Your task to perform on an android device: make emails show in primary in the gmail app Image 0: 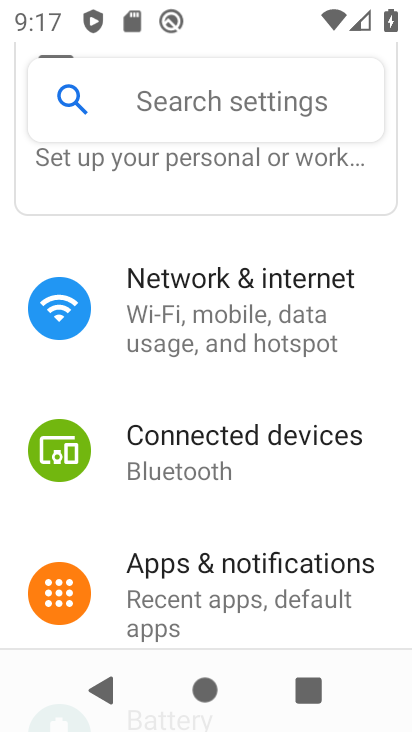
Step 0: press home button
Your task to perform on an android device: make emails show in primary in the gmail app Image 1: 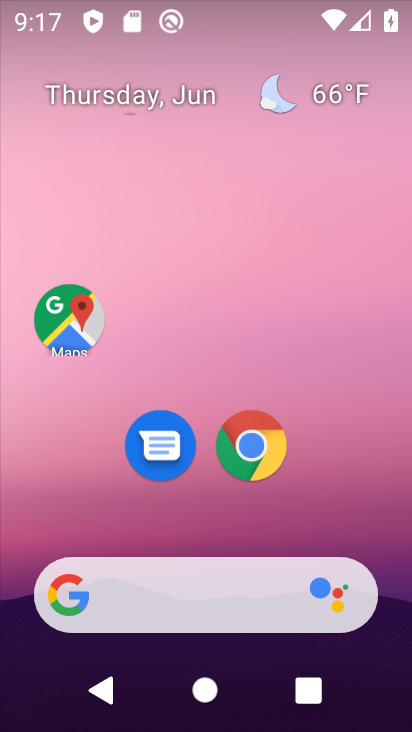
Step 1: drag from (212, 529) to (257, 55)
Your task to perform on an android device: make emails show in primary in the gmail app Image 2: 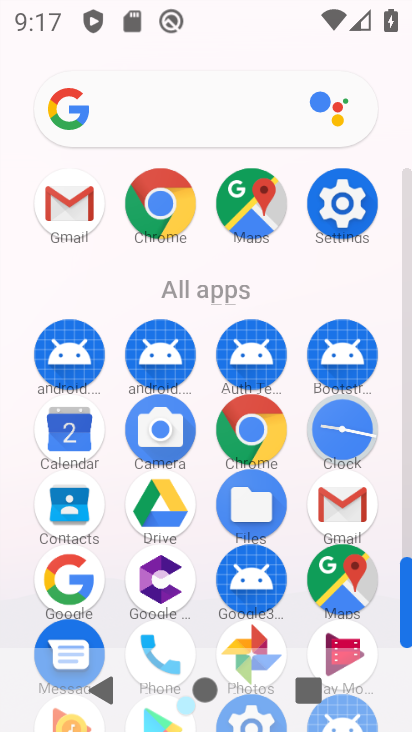
Step 2: click (64, 207)
Your task to perform on an android device: make emails show in primary in the gmail app Image 3: 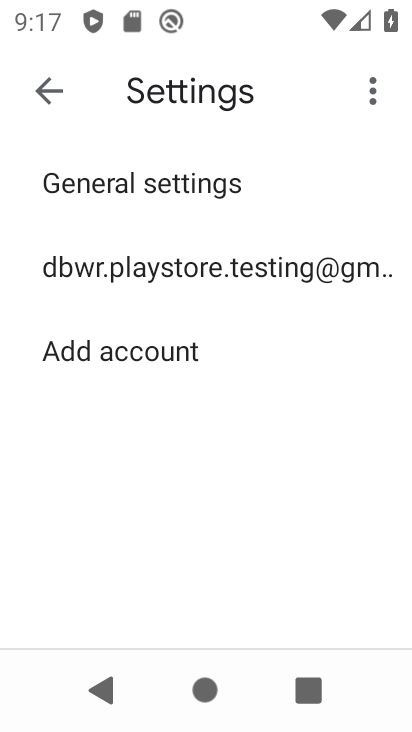
Step 3: click (116, 267)
Your task to perform on an android device: make emails show in primary in the gmail app Image 4: 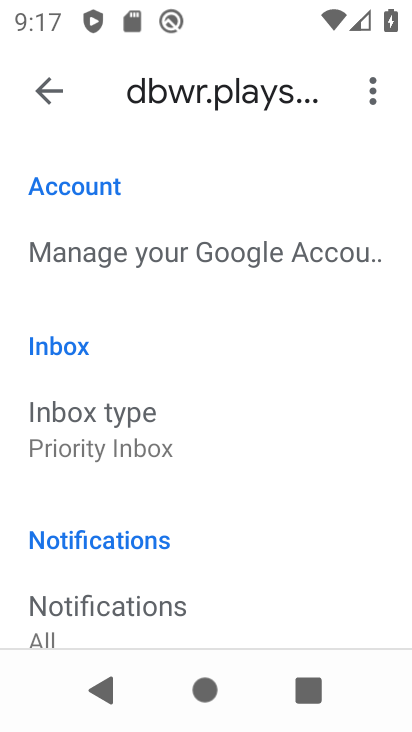
Step 4: click (98, 438)
Your task to perform on an android device: make emails show in primary in the gmail app Image 5: 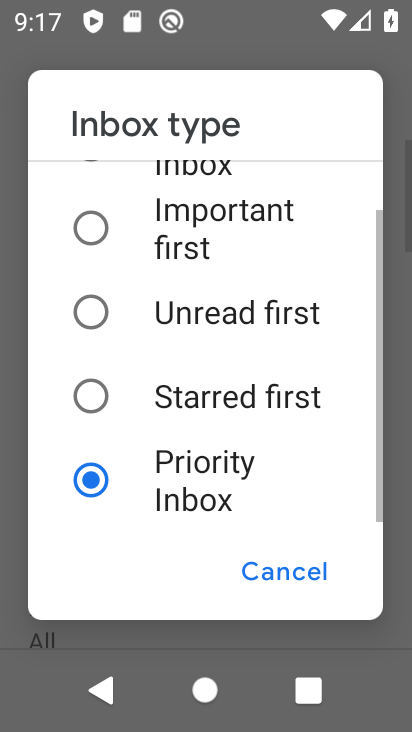
Step 5: drag from (198, 253) to (242, 521)
Your task to perform on an android device: make emails show in primary in the gmail app Image 6: 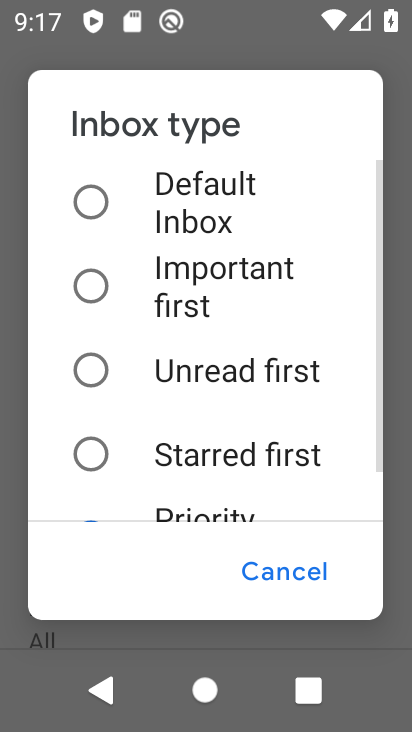
Step 6: click (184, 181)
Your task to perform on an android device: make emails show in primary in the gmail app Image 7: 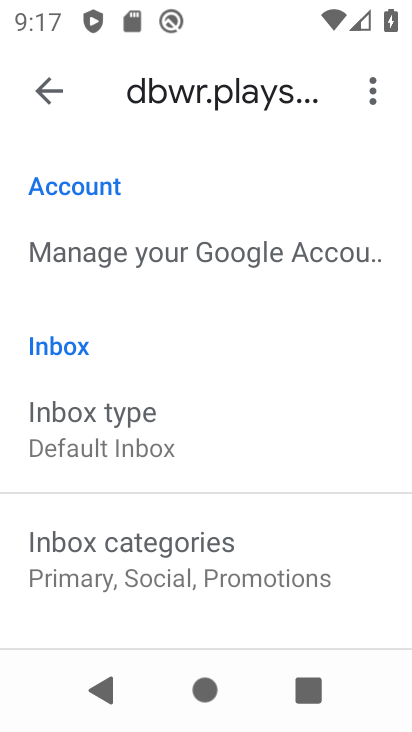
Step 7: task complete